Your task to perform on an android device: Do I have any events tomorrow? Image 0: 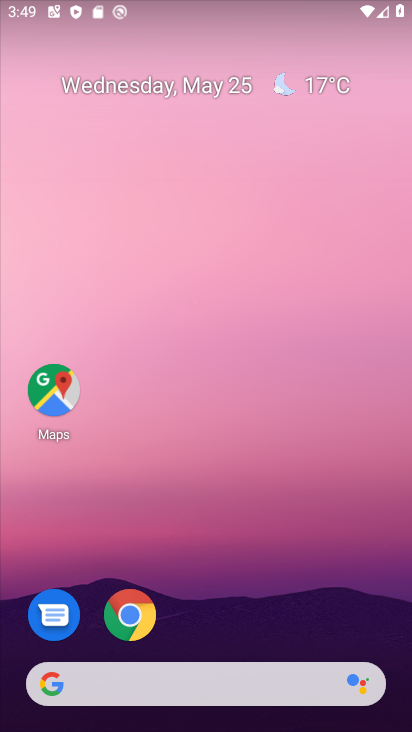
Step 0: drag from (332, 508) to (352, 4)
Your task to perform on an android device: Do I have any events tomorrow? Image 1: 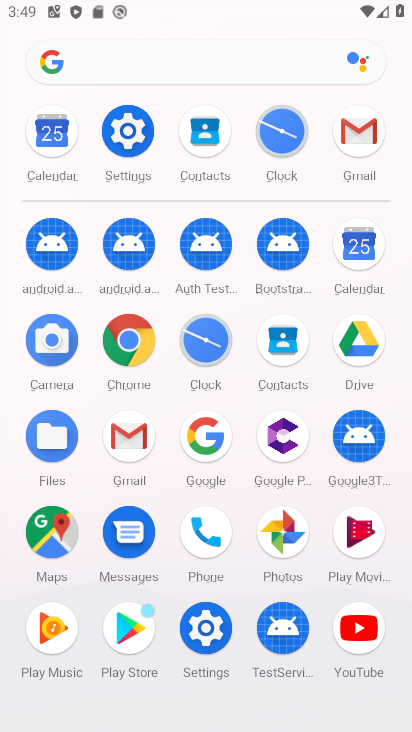
Step 1: click (352, 245)
Your task to perform on an android device: Do I have any events tomorrow? Image 2: 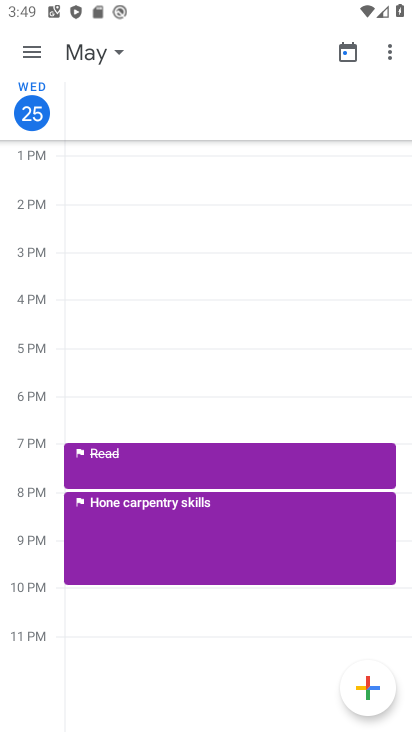
Step 2: click (34, 53)
Your task to perform on an android device: Do I have any events tomorrow? Image 3: 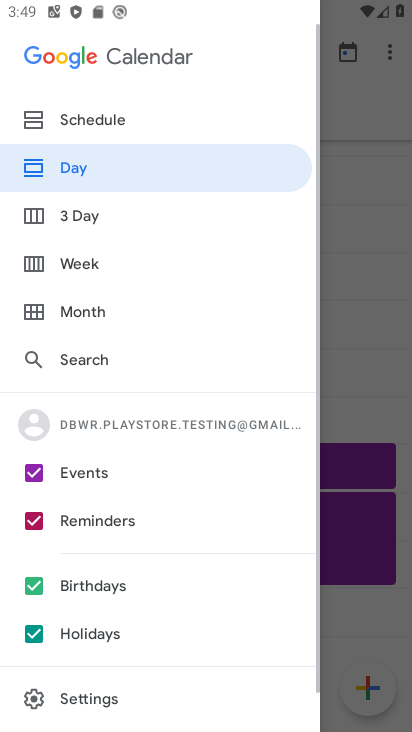
Step 3: click (357, 170)
Your task to perform on an android device: Do I have any events tomorrow? Image 4: 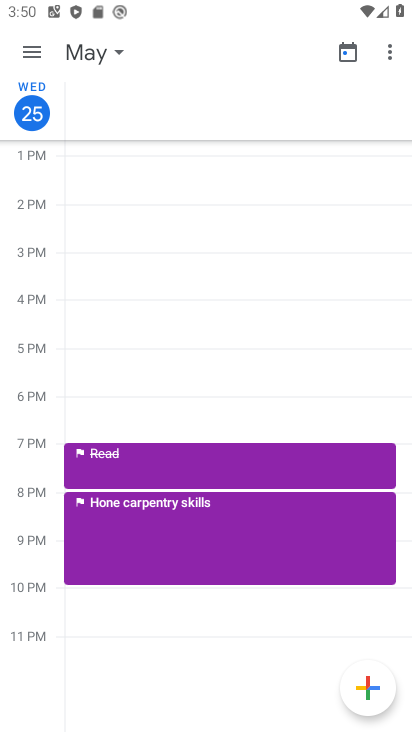
Step 4: click (115, 51)
Your task to perform on an android device: Do I have any events tomorrow? Image 5: 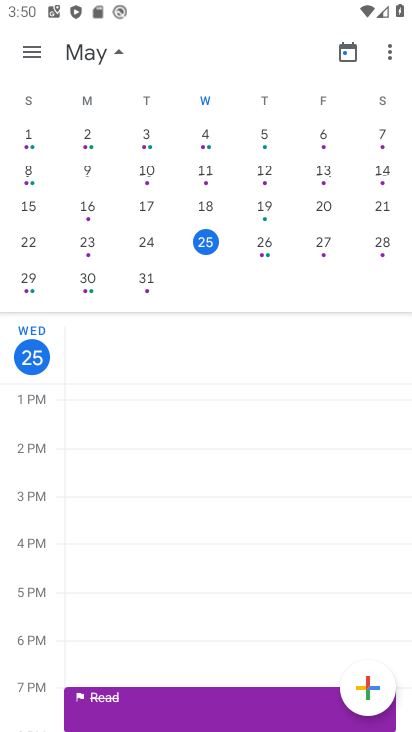
Step 5: click (267, 248)
Your task to perform on an android device: Do I have any events tomorrow? Image 6: 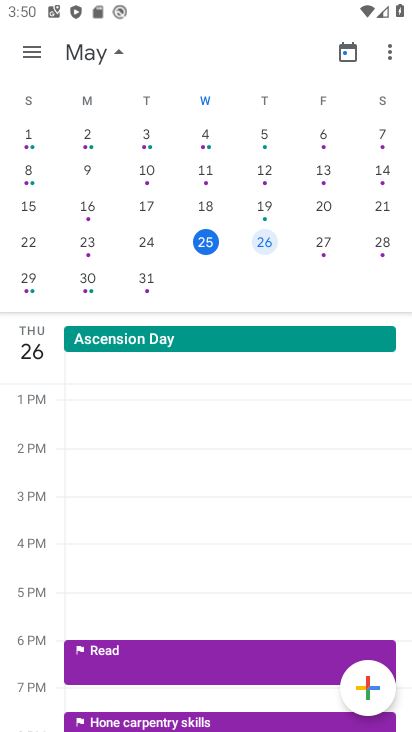
Step 6: click (263, 243)
Your task to perform on an android device: Do I have any events tomorrow? Image 7: 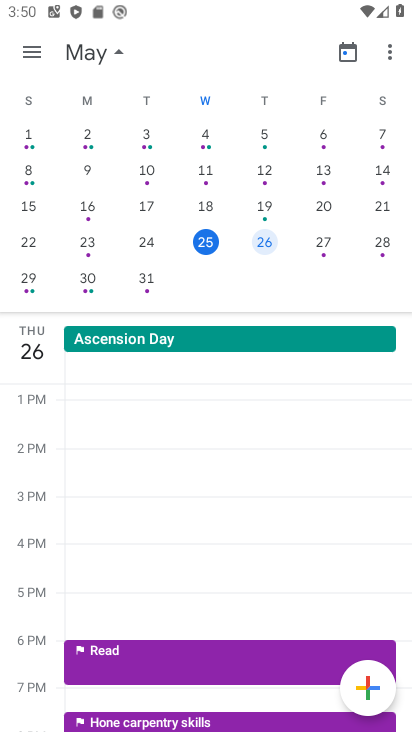
Step 7: task complete